Your task to perform on an android device: turn off location Image 0: 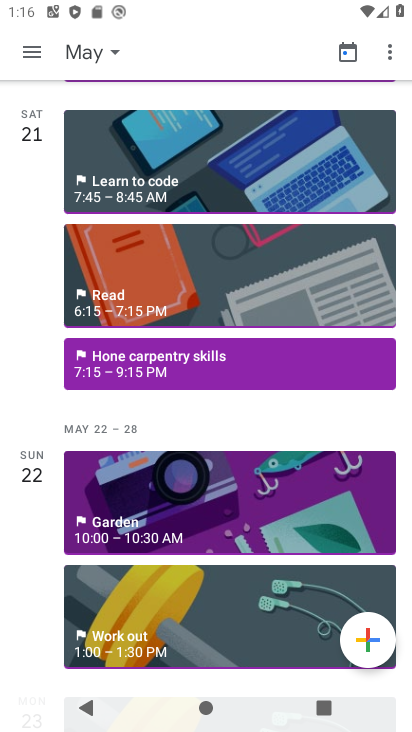
Step 0: press home button
Your task to perform on an android device: turn off location Image 1: 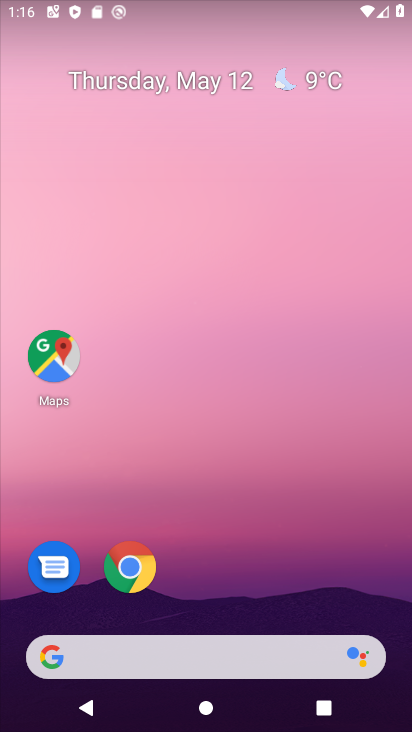
Step 1: drag from (229, 622) to (249, 42)
Your task to perform on an android device: turn off location Image 2: 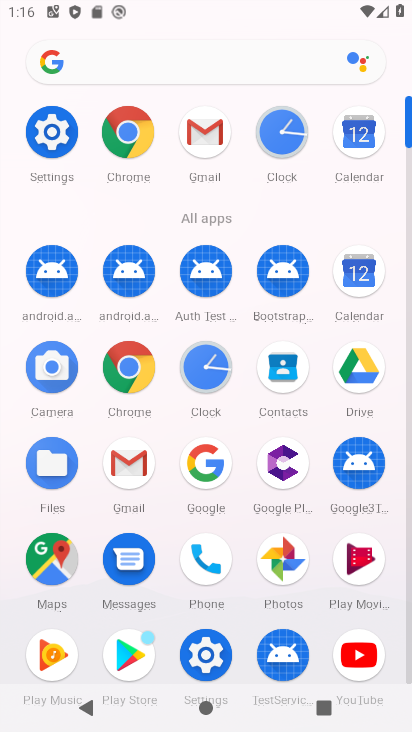
Step 2: click (42, 124)
Your task to perform on an android device: turn off location Image 3: 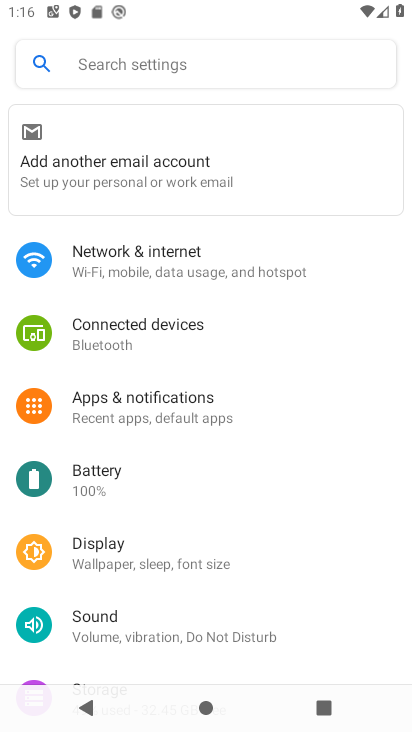
Step 3: drag from (161, 617) to (195, 66)
Your task to perform on an android device: turn off location Image 4: 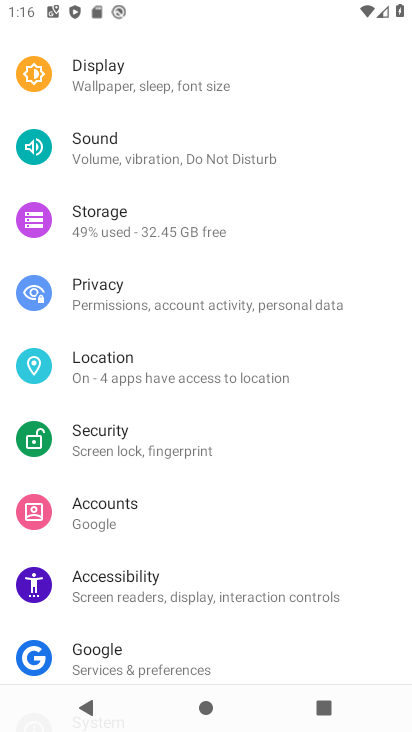
Step 4: click (149, 354)
Your task to perform on an android device: turn off location Image 5: 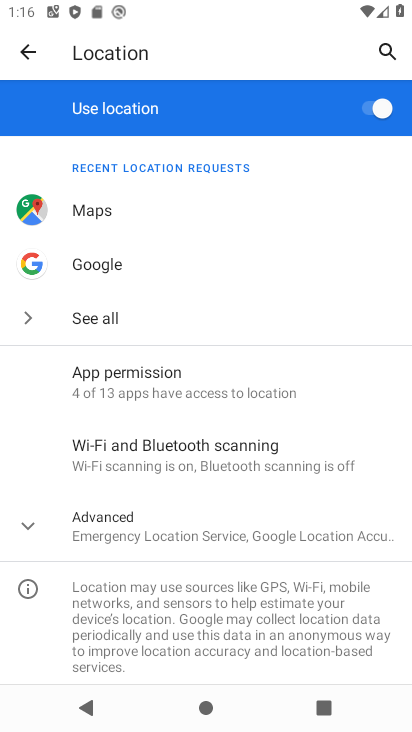
Step 5: click (367, 97)
Your task to perform on an android device: turn off location Image 6: 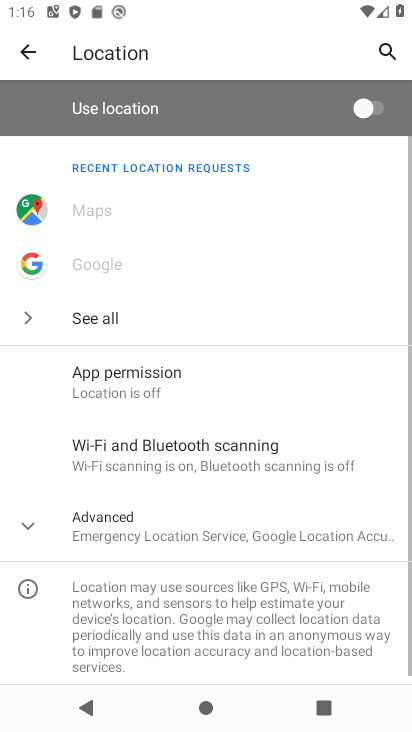
Step 6: task complete